Your task to perform on an android device: allow notifications from all sites in the chrome app Image 0: 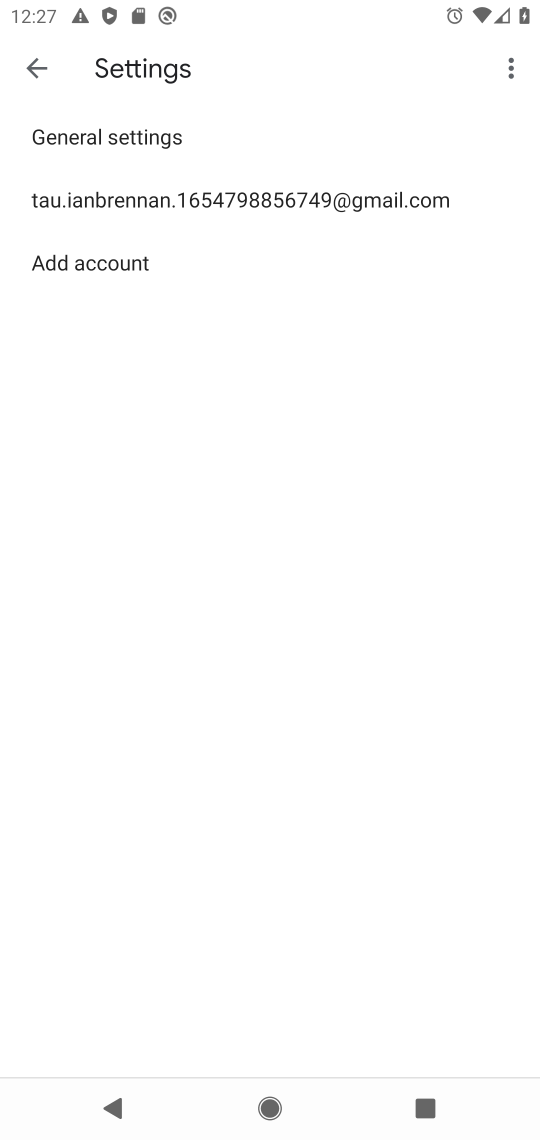
Step 0: press home button
Your task to perform on an android device: allow notifications from all sites in the chrome app Image 1: 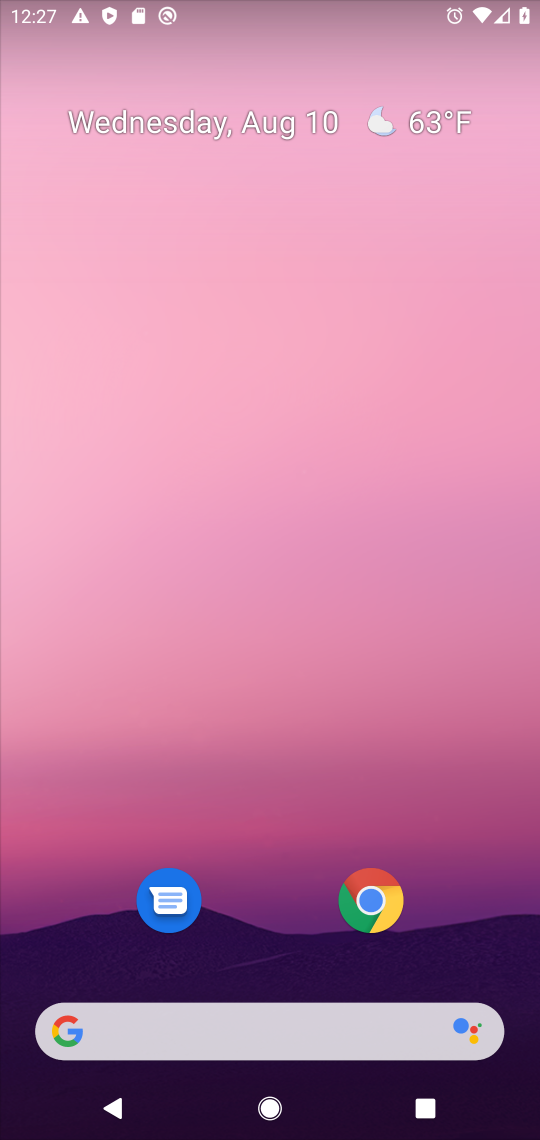
Step 1: click (368, 903)
Your task to perform on an android device: allow notifications from all sites in the chrome app Image 2: 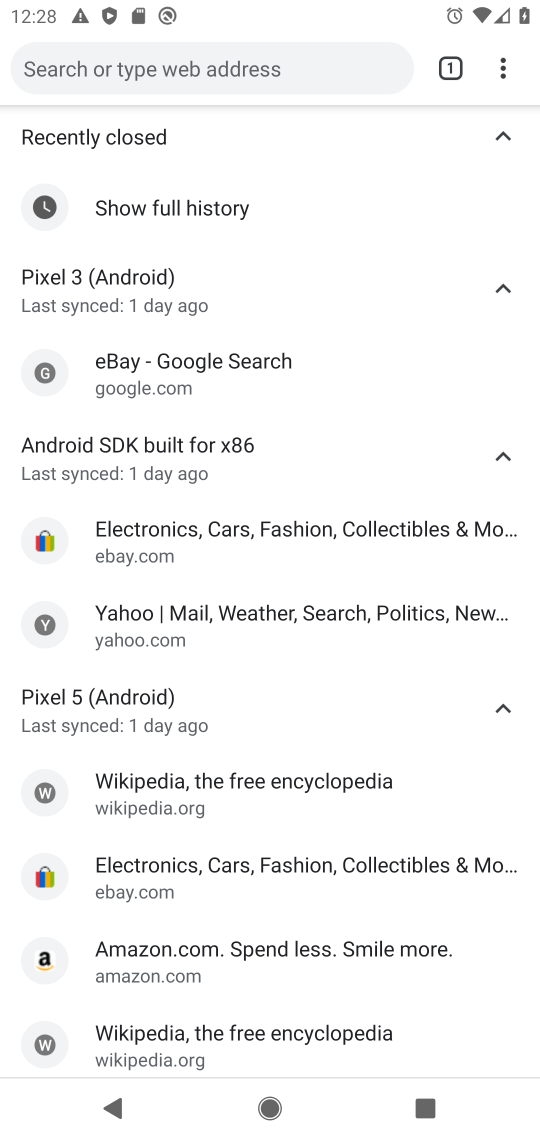
Step 2: click (503, 70)
Your task to perform on an android device: allow notifications from all sites in the chrome app Image 3: 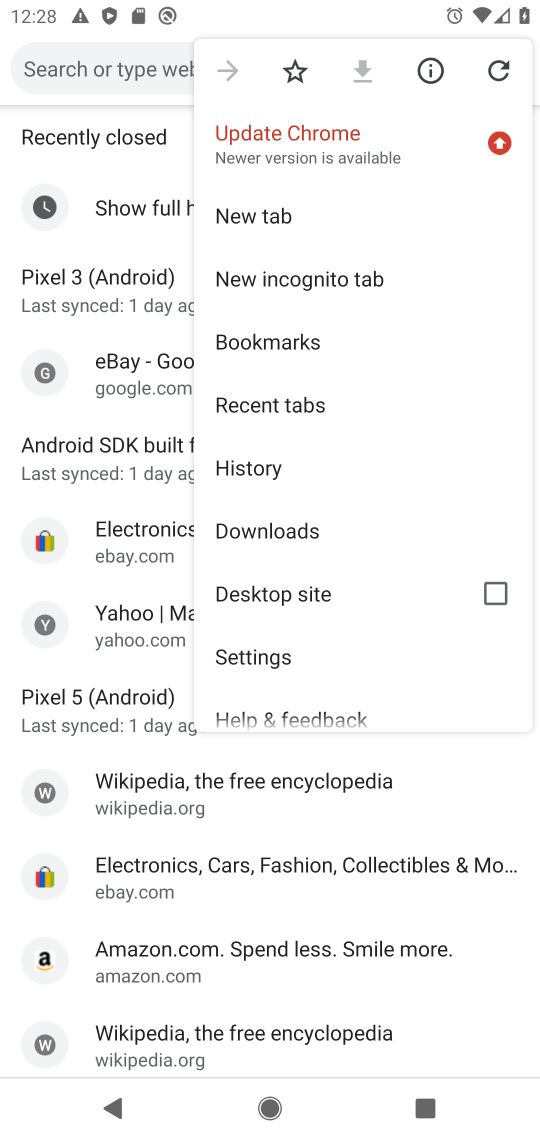
Step 3: click (279, 661)
Your task to perform on an android device: allow notifications from all sites in the chrome app Image 4: 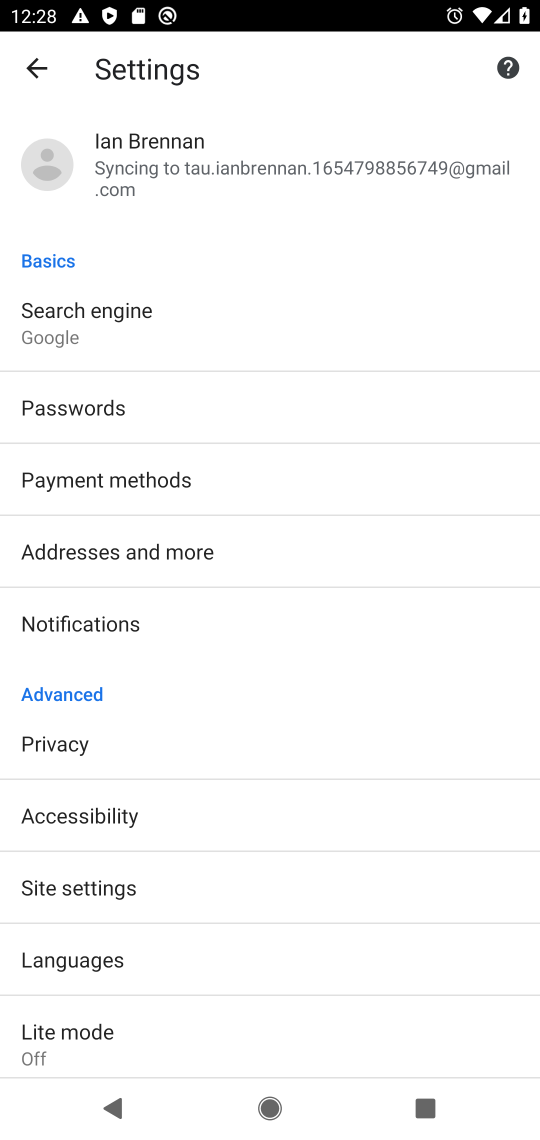
Step 4: click (291, 616)
Your task to perform on an android device: allow notifications from all sites in the chrome app Image 5: 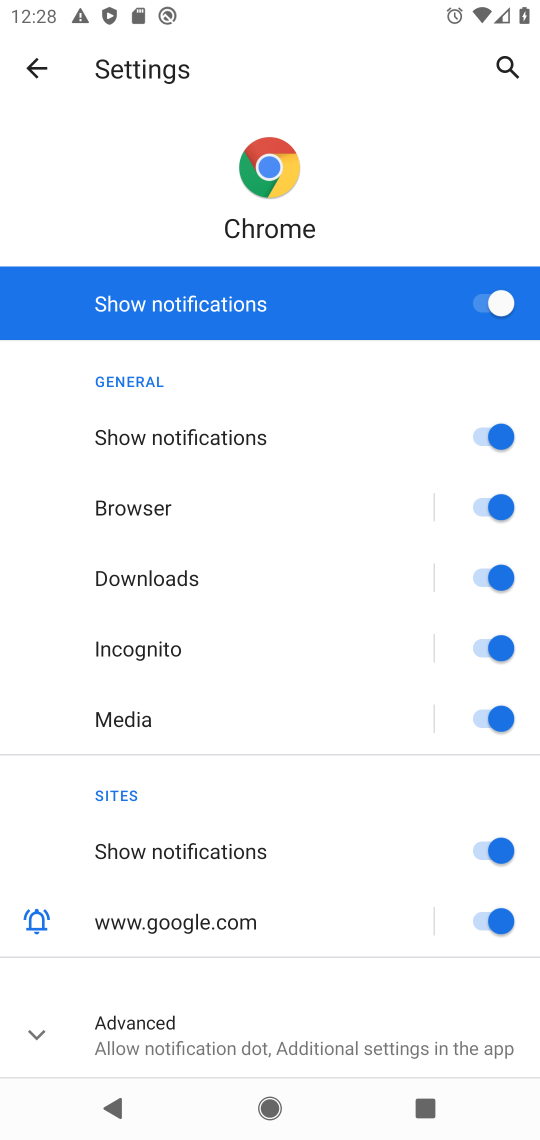
Step 5: task complete